Your task to perform on an android device: Open the Play Movies app and select the watchlist tab. Image 0: 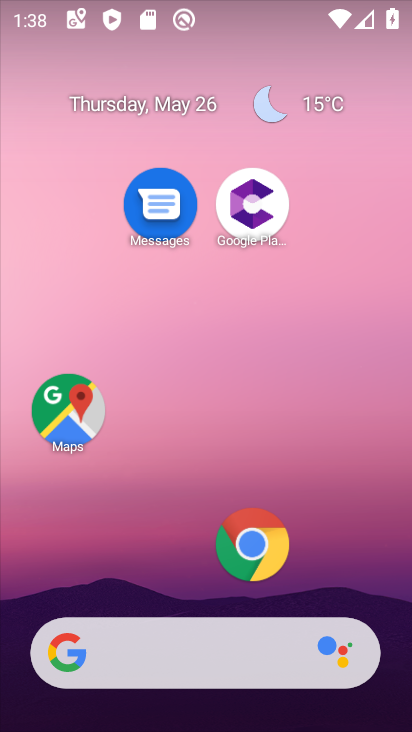
Step 0: drag from (116, 589) to (226, 64)
Your task to perform on an android device: Open the Play Movies app and select the watchlist tab. Image 1: 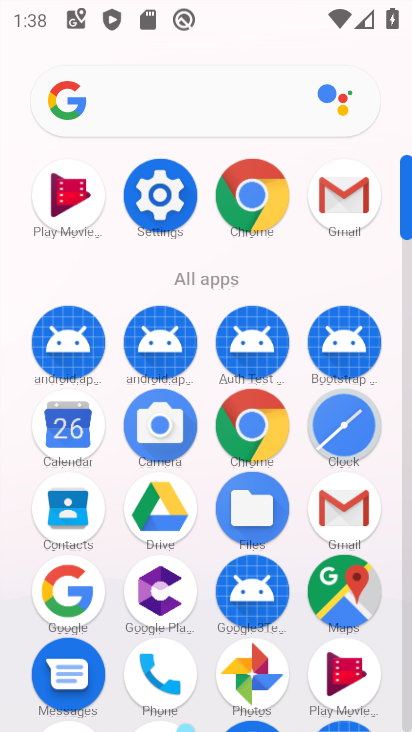
Step 1: click (71, 208)
Your task to perform on an android device: Open the Play Movies app and select the watchlist tab. Image 2: 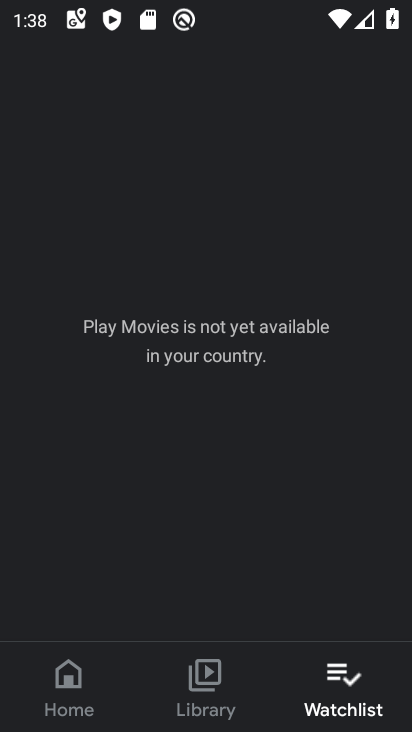
Step 2: task complete